Your task to perform on an android device: Check the news Image 0: 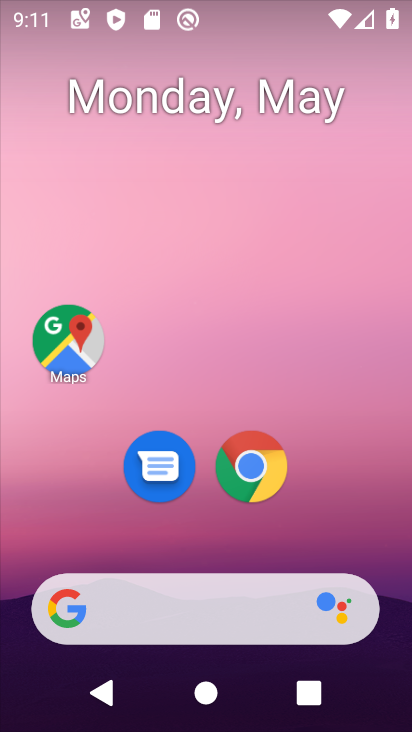
Step 0: click (246, 454)
Your task to perform on an android device: Check the news Image 1: 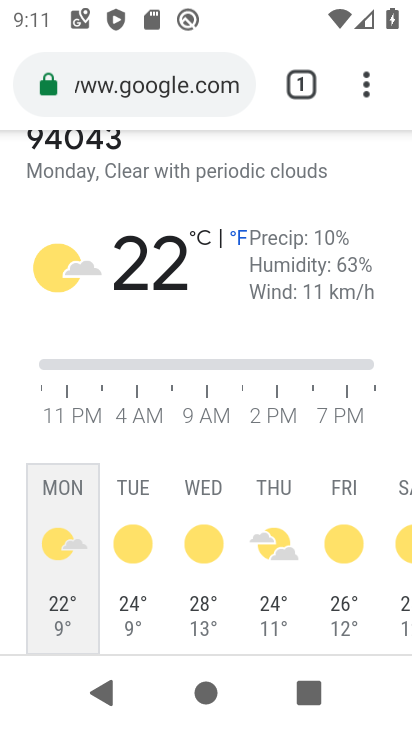
Step 1: click (212, 92)
Your task to perform on an android device: Check the news Image 2: 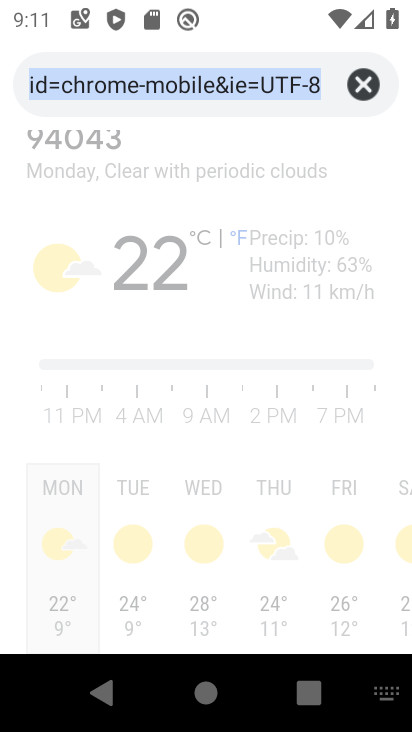
Step 2: click (350, 83)
Your task to perform on an android device: Check the news Image 3: 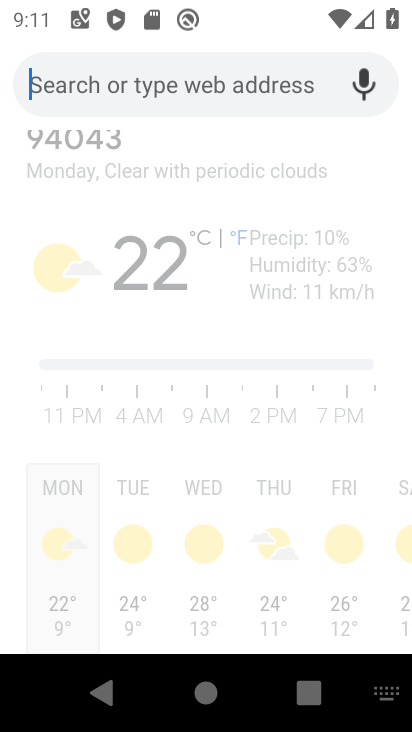
Step 3: type "Check the news"
Your task to perform on an android device: Check the news Image 4: 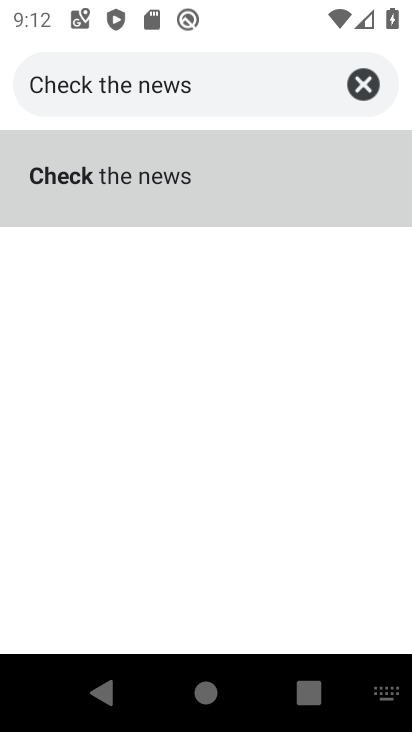
Step 4: click (86, 174)
Your task to perform on an android device: Check the news Image 5: 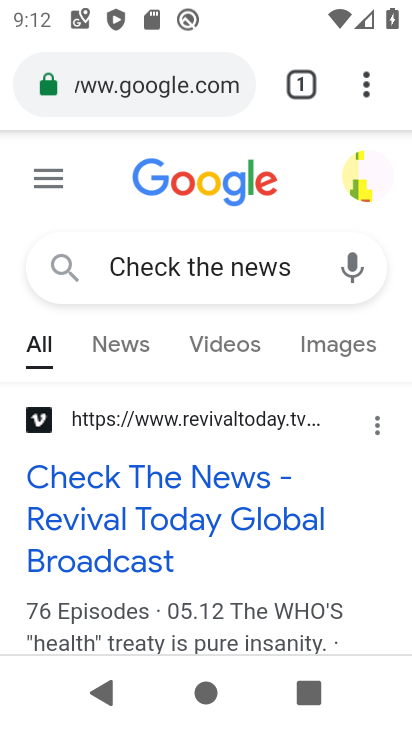
Step 5: drag from (330, 568) to (340, 394)
Your task to perform on an android device: Check the news Image 6: 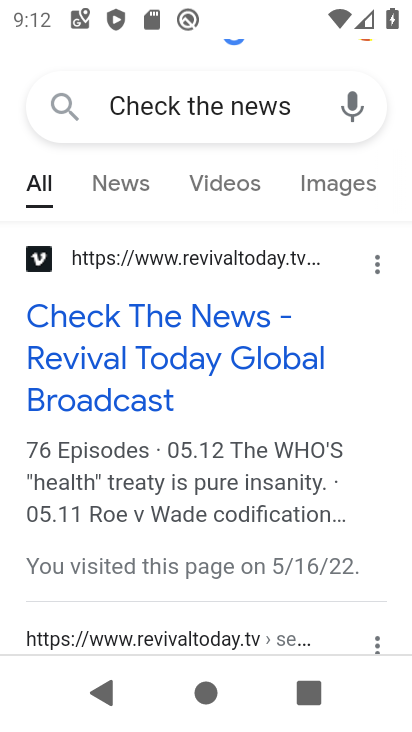
Step 6: click (125, 186)
Your task to perform on an android device: Check the news Image 7: 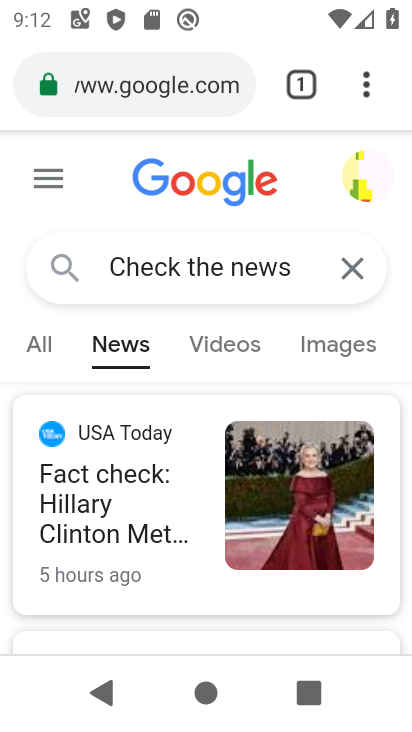
Step 7: task complete